Your task to perform on an android device: turn pop-ups off in chrome Image 0: 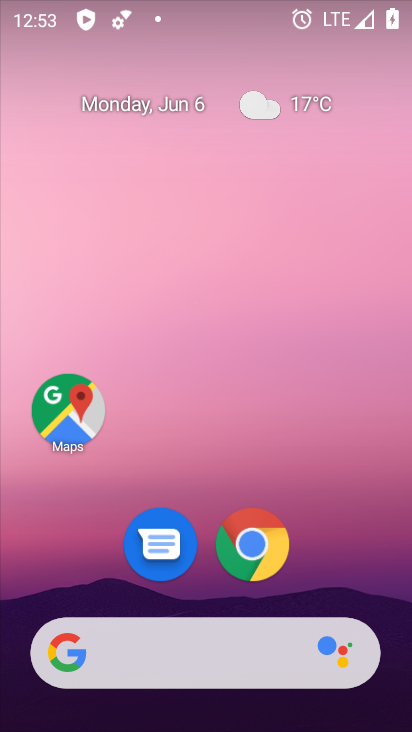
Step 0: drag from (382, 575) to (282, 121)
Your task to perform on an android device: turn pop-ups off in chrome Image 1: 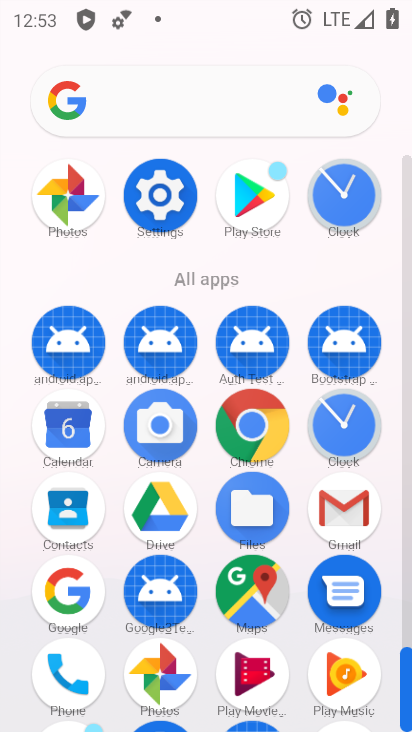
Step 1: click (266, 427)
Your task to perform on an android device: turn pop-ups off in chrome Image 2: 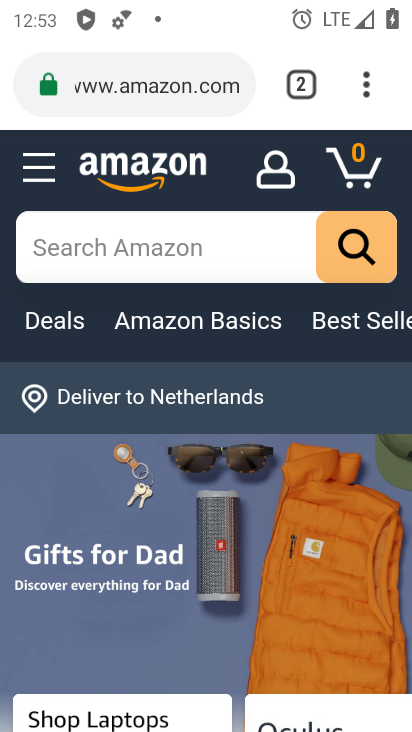
Step 2: click (359, 88)
Your task to perform on an android device: turn pop-ups off in chrome Image 3: 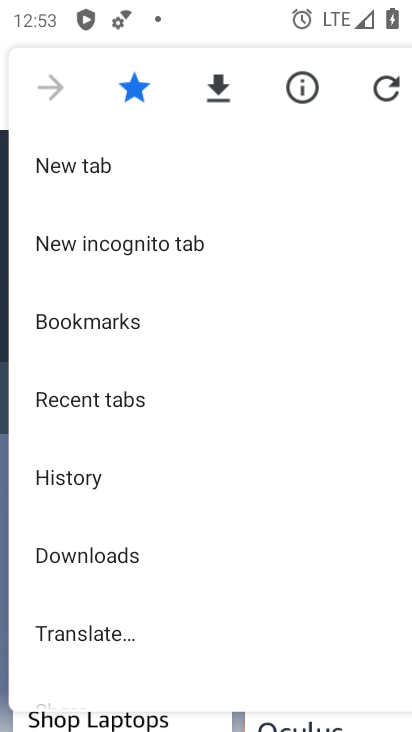
Step 3: drag from (199, 672) to (182, 304)
Your task to perform on an android device: turn pop-ups off in chrome Image 4: 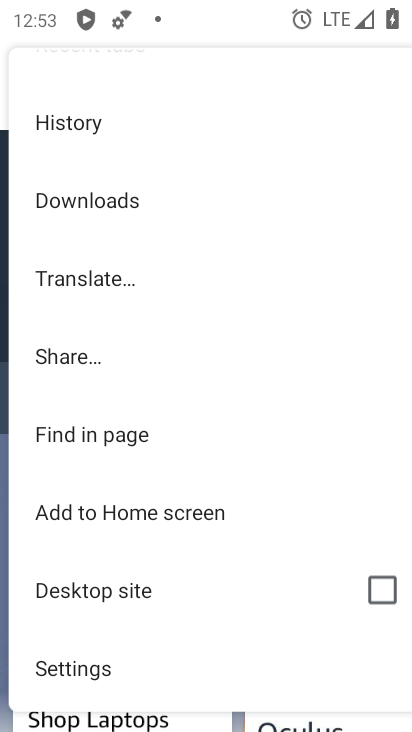
Step 4: drag from (147, 637) to (138, 396)
Your task to perform on an android device: turn pop-ups off in chrome Image 5: 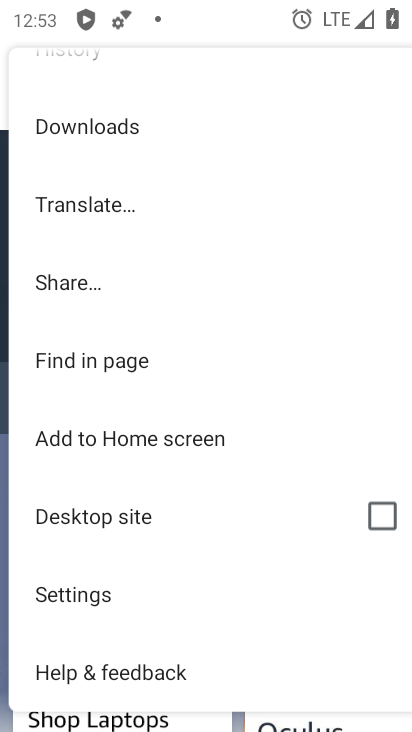
Step 5: click (137, 601)
Your task to perform on an android device: turn pop-ups off in chrome Image 6: 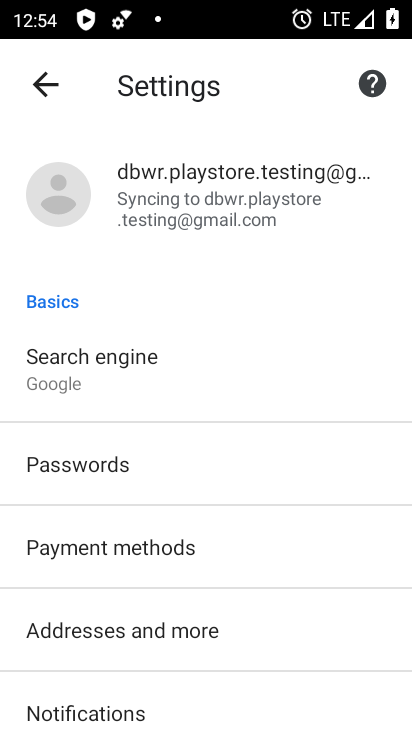
Step 6: drag from (209, 694) to (221, 277)
Your task to perform on an android device: turn pop-ups off in chrome Image 7: 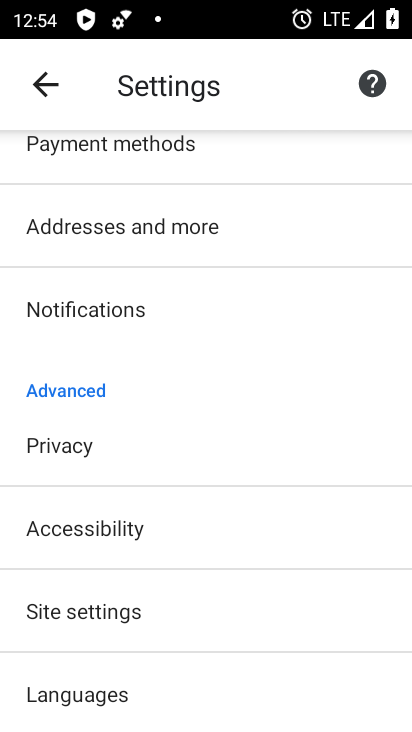
Step 7: drag from (235, 658) to (221, 500)
Your task to perform on an android device: turn pop-ups off in chrome Image 8: 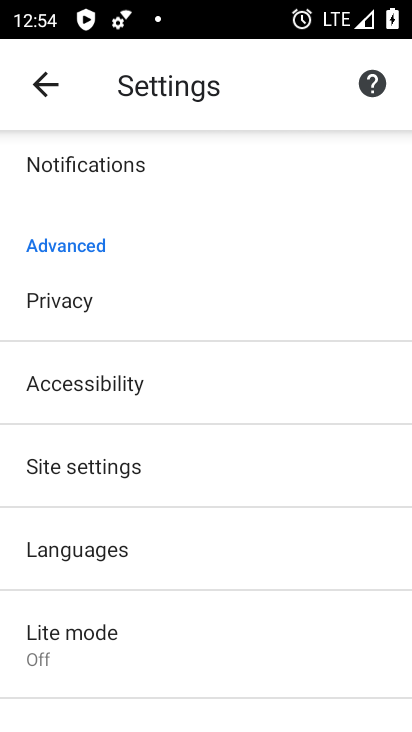
Step 8: click (177, 467)
Your task to perform on an android device: turn pop-ups off in chrome Image 9: 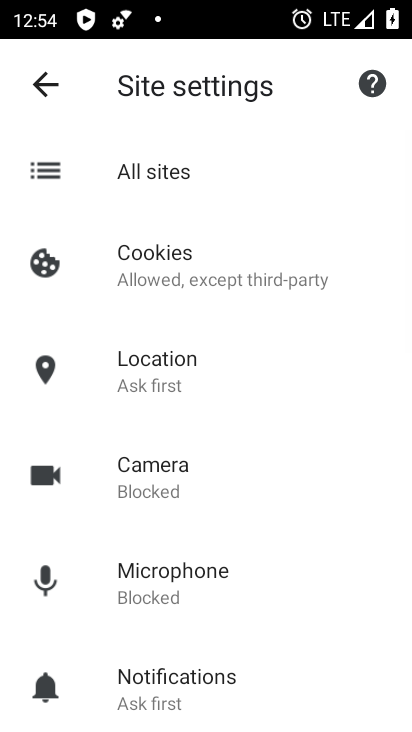
Step 9: drag from (228, 656) to (210, 327)
Your task to perform on an android device: turn pop-ups off in chrome Image 10: 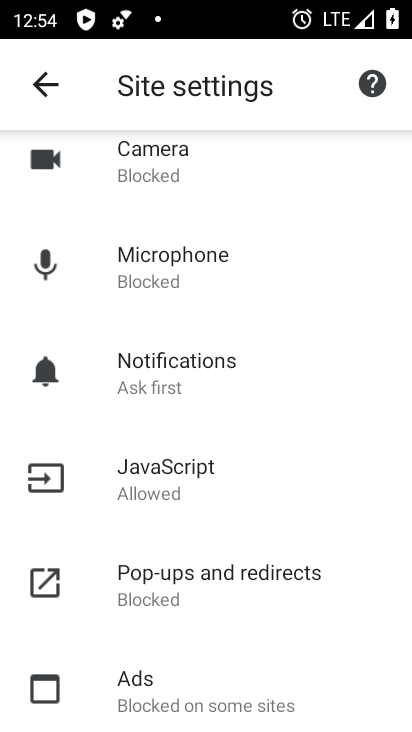
Step 10: click (215, 593)
Your task to perform on an android device: turn pop-ups off in chrome Image 11: 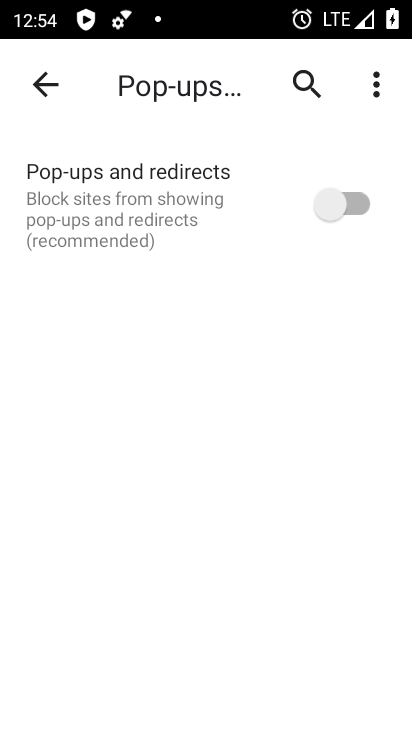
Step 11: task complete